Your task to perform on an android device: Go to Yahoo.com Image 0: 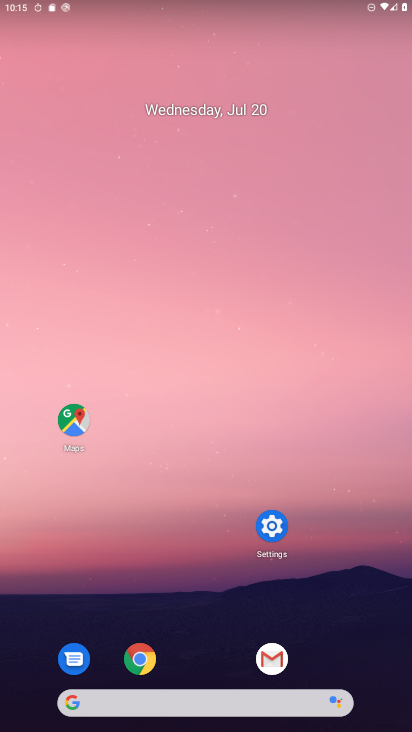
Step 0: click (68, 708)
Your task to perform on an android device: Go to Yahoo.com Image 1: 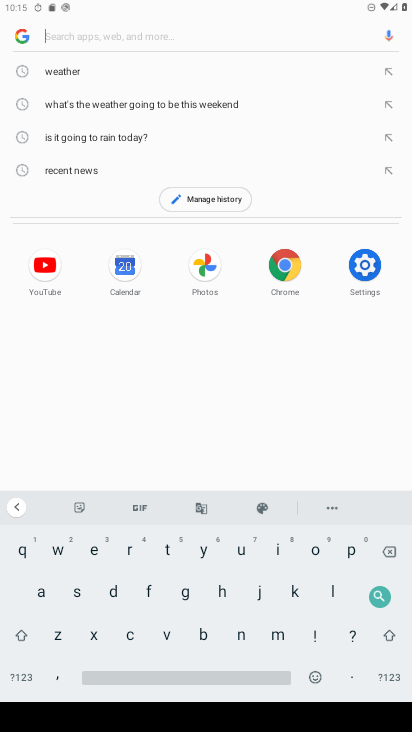
Step 1: click (19, 32)
Your task to perform on an android device: Go to Yahoo.com Image 2: 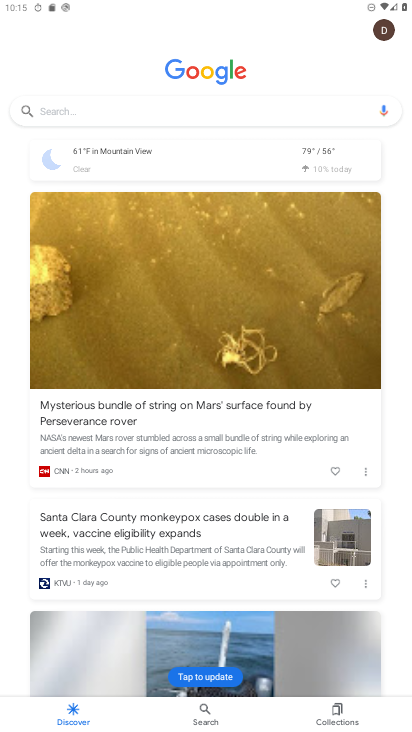
Step 2: click (133, 109)
Your task to perform on an android device: Go to Yahoo.com Image 3: 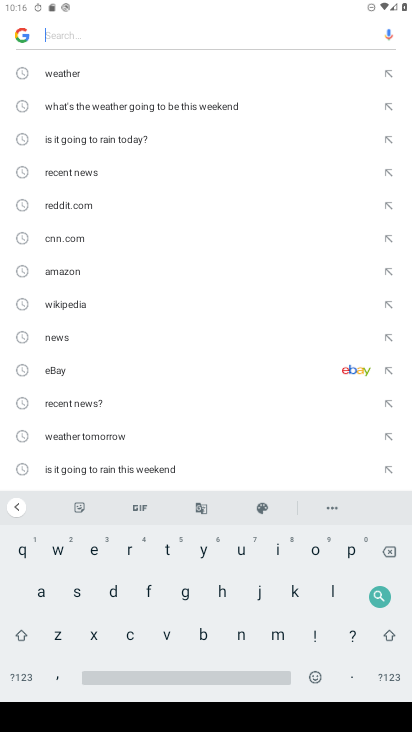
Step 3: click (213, 544)
Your task to perform on an android device: Go to Yahoo.com Image 4: 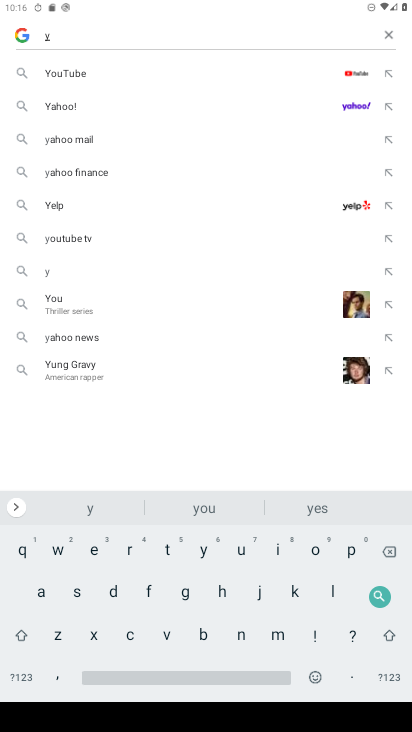
Step 4: click (69, 111)
Your task to perform on an android device: Go to Yahoo.com Image 5: 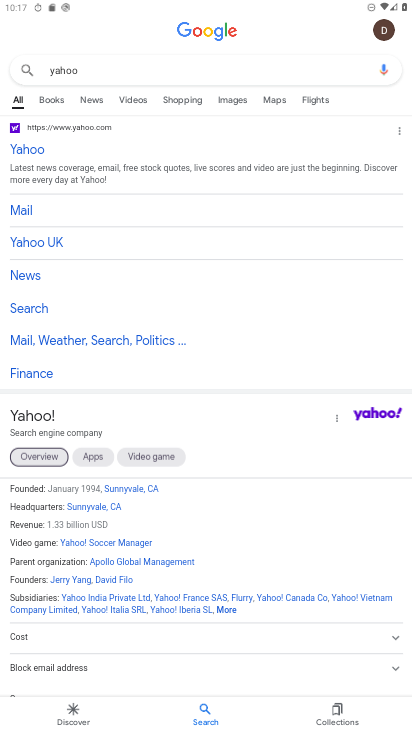
Step 5: click (35, 144)
Your task to perform on an android device: Go to Yahoo.com Image 6: 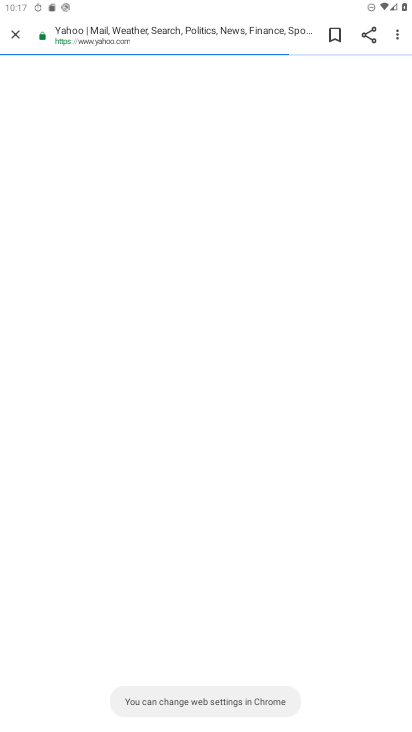
Step 6: task complete